Your task to perform on an android device: turn on the 12-hour format for clock Image 0: 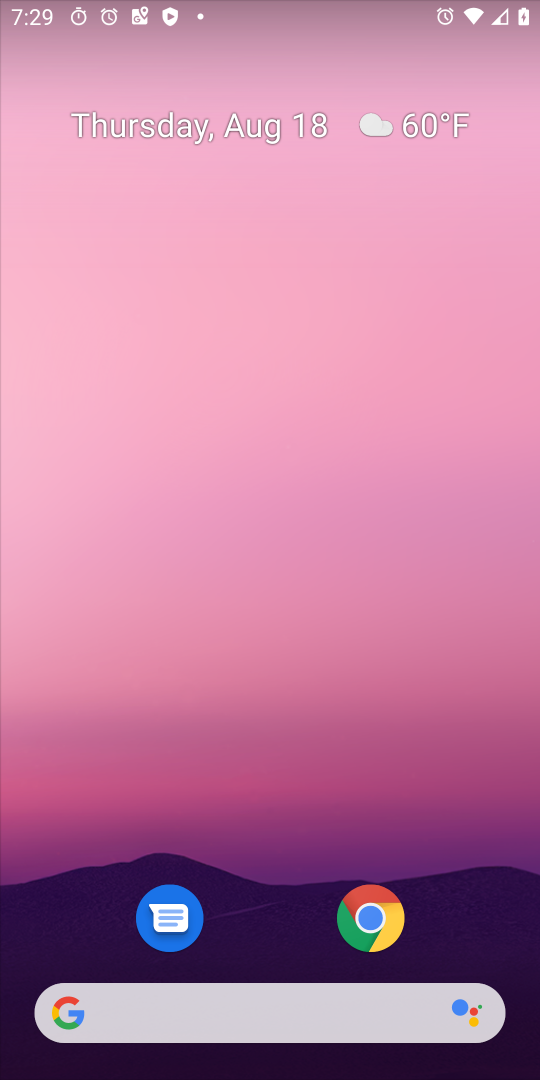
Step 0: press home button
Your task to perform on an android device: turn on the 12-hour format for clock Image 1: 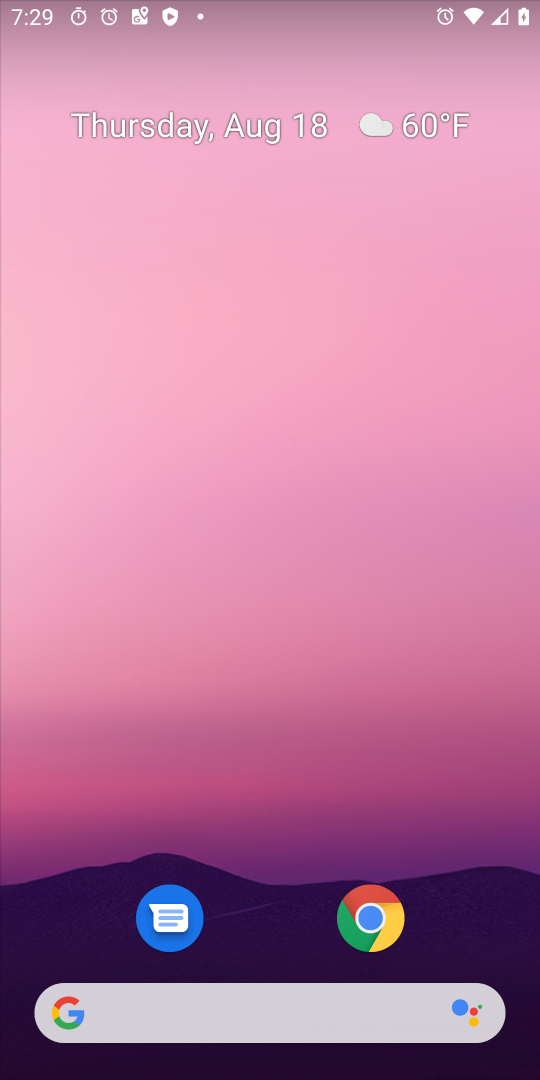
Step 1: press home button
Your task to perform on an android device: turn on the 12-hour format for clock Image 2: 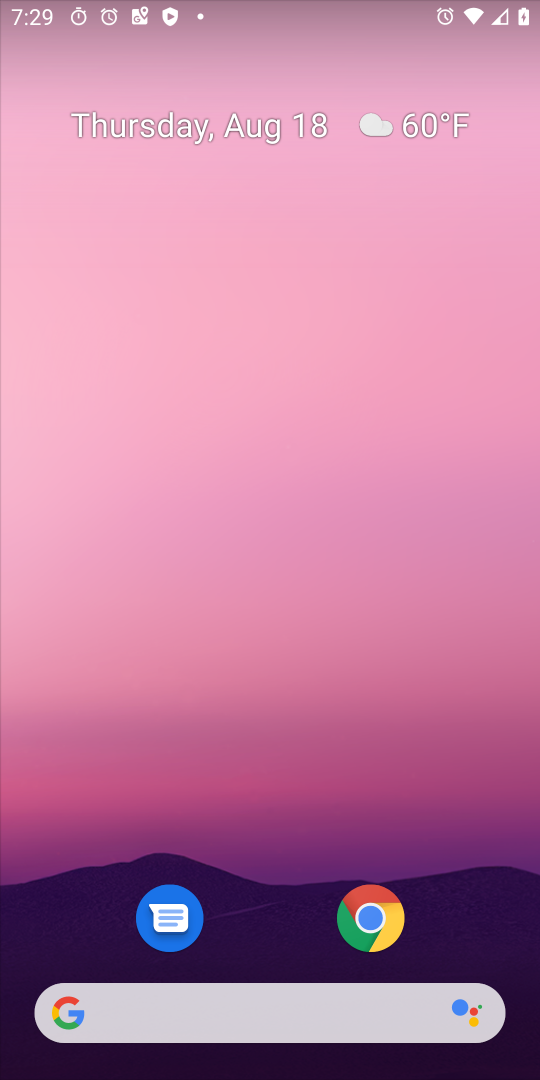
Step 2: drag from (296, 868) to (288, 25)
Your task to perform on an android device: turn on the 12-hour format for clock Image 3: 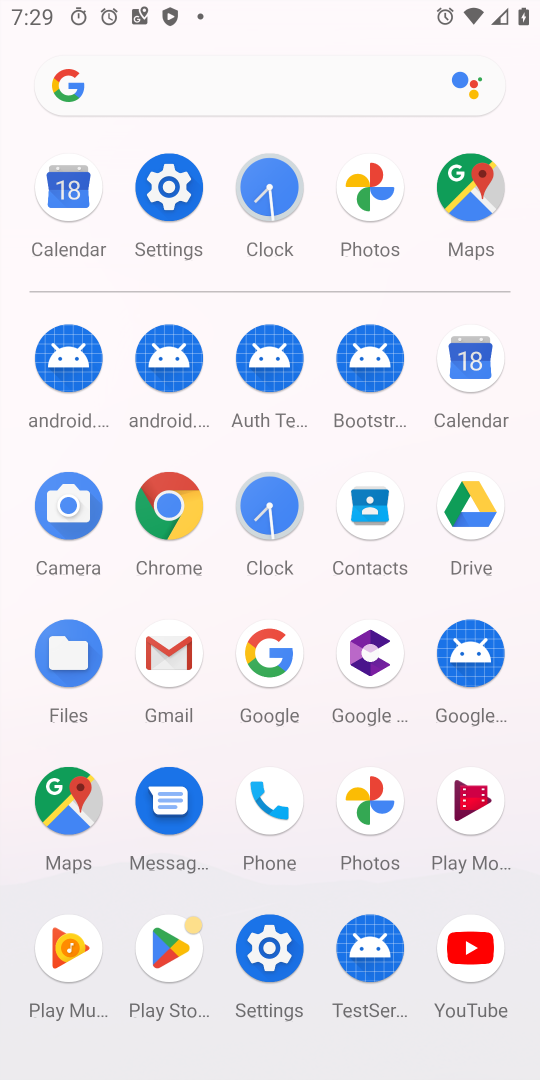
Step 3: click (161, 218)
Your task to perform on an android device: turn on the 12-hour format for clock Image 4: 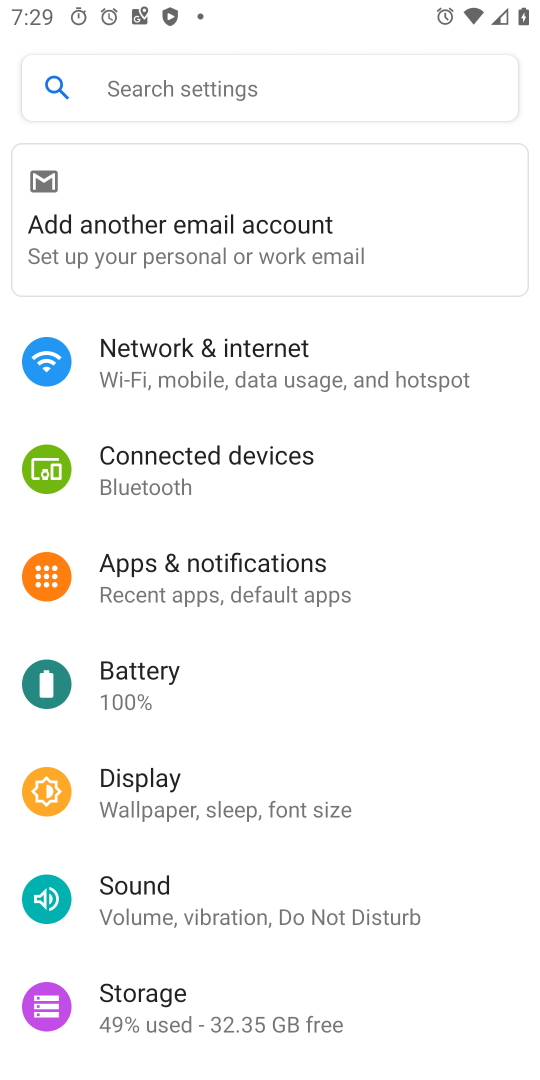
Step 4: drag from (444, 959) to (379, 177)
Your task to perform on an android device: turn on the 12-hour format for clock Image 5: 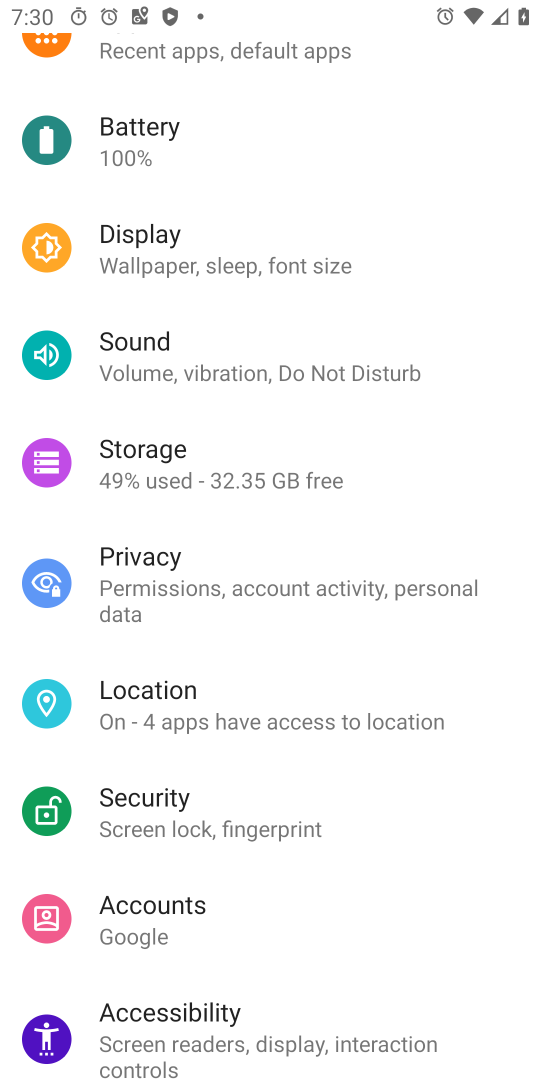
Step 5: drag from (369, 996) to (421, 91)
Your task to perform on an android device: turn on the 12-hour format for clock Image 6: 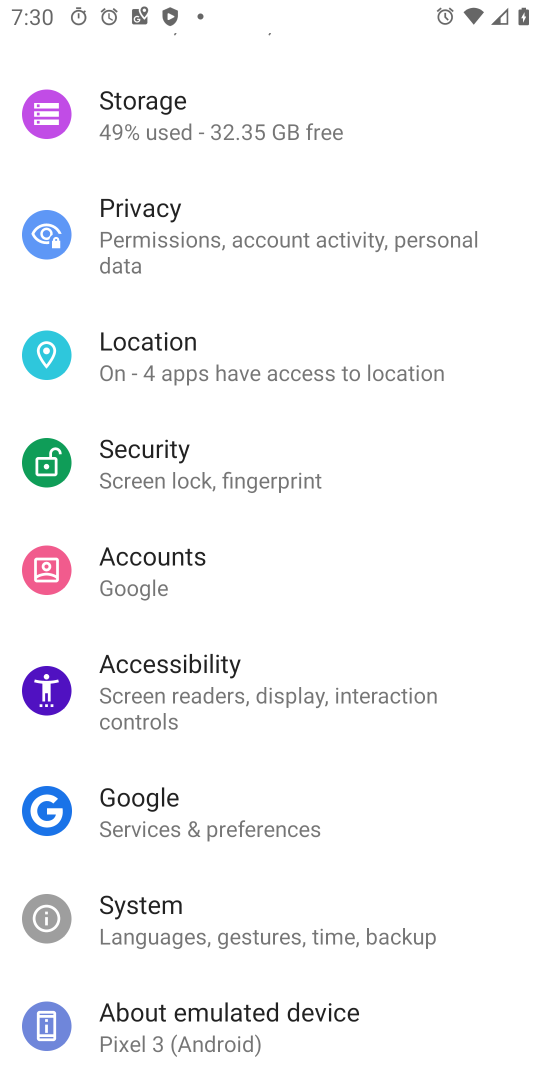
Step 6: drag from (445, 1028) to (455, 95)
Your task to perform on an android device: turn on the 12-hour format for clock Image 7: 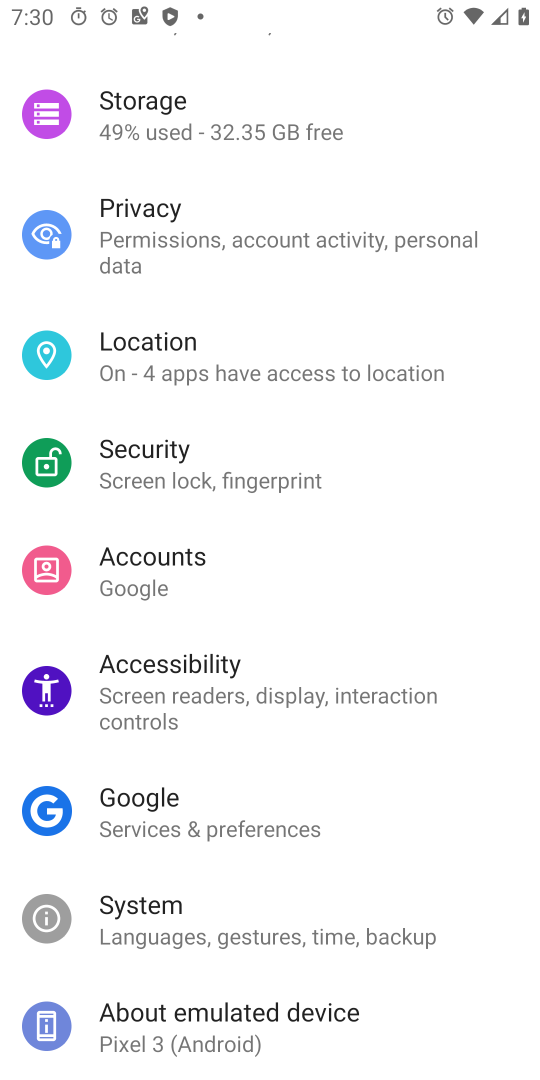
Step 7: drag from (443, 1027) to (398, 122)
Your task to perform on an android device: turn on the 12-hour format for clock Image 8: 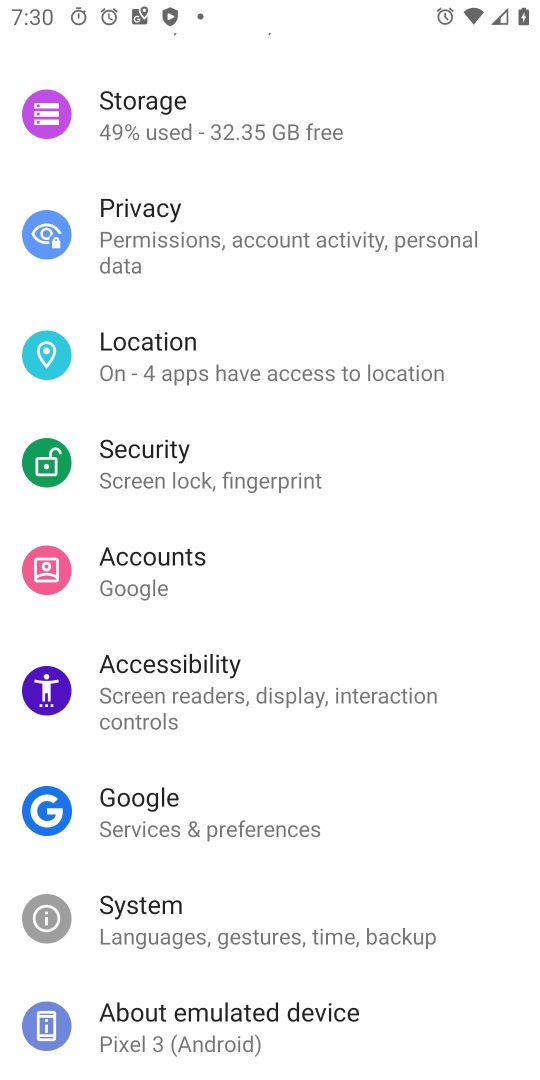
Step 8: drag from (302, 900) to (305, 69)
Your task to perform on an android device: turn on the 12-hour format for clock Image 9: 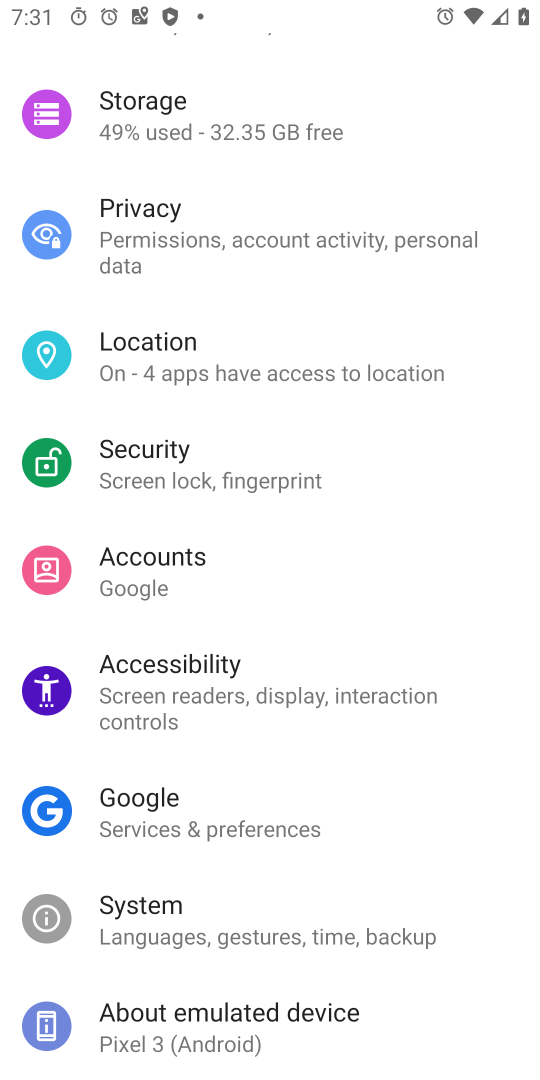
Step 9: click (148, 932)
Your task to perform on an android device: turn on the 12-hour format for clock Image 10: 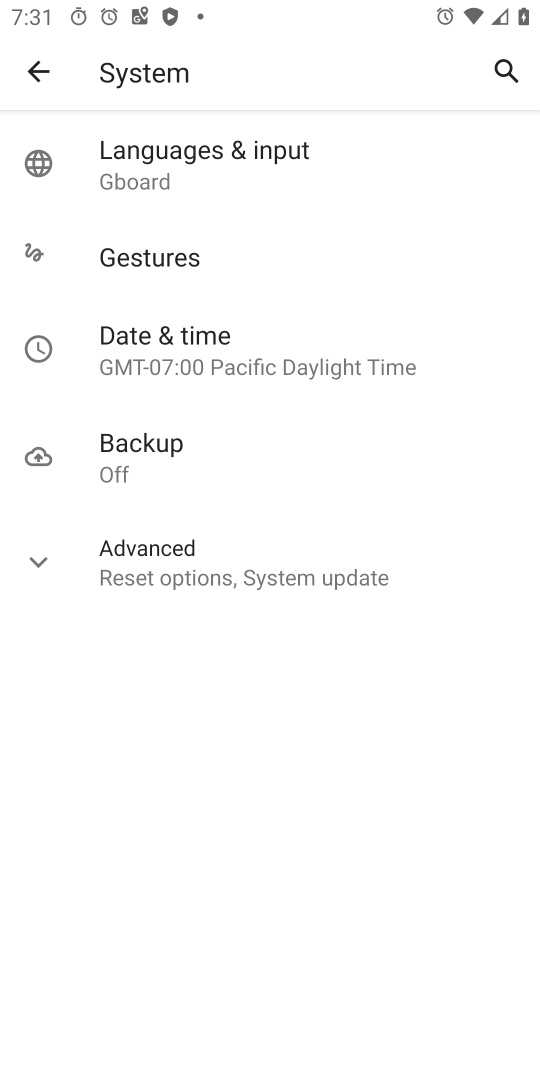
Step 10: click (182, 351)
Your task to perform on an android device: turn on the 12-hour format for clock Image 11: 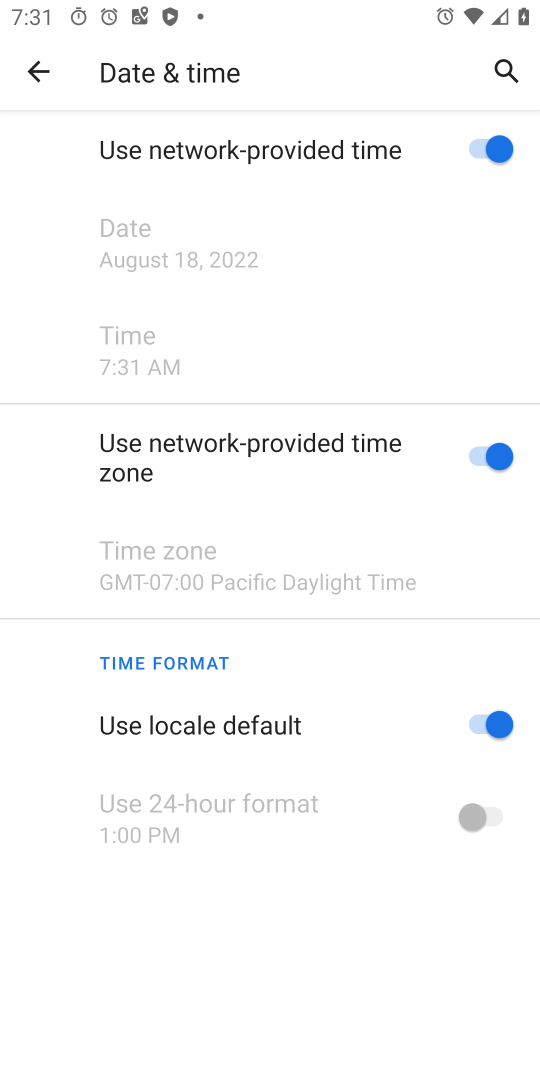
Step 11: click (500, 735)
Your task to perform on an android device: turn on the 12-hour format for clock Image 12: 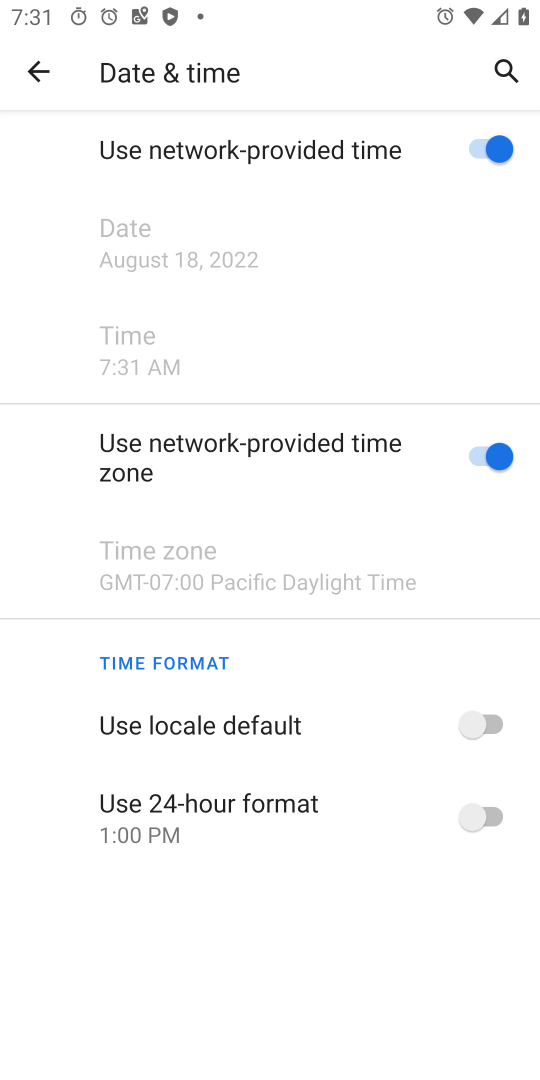
Step 12: click (482, 810)
Your task to perform on an android device: turn on the 12-hour format for clock Image 13: 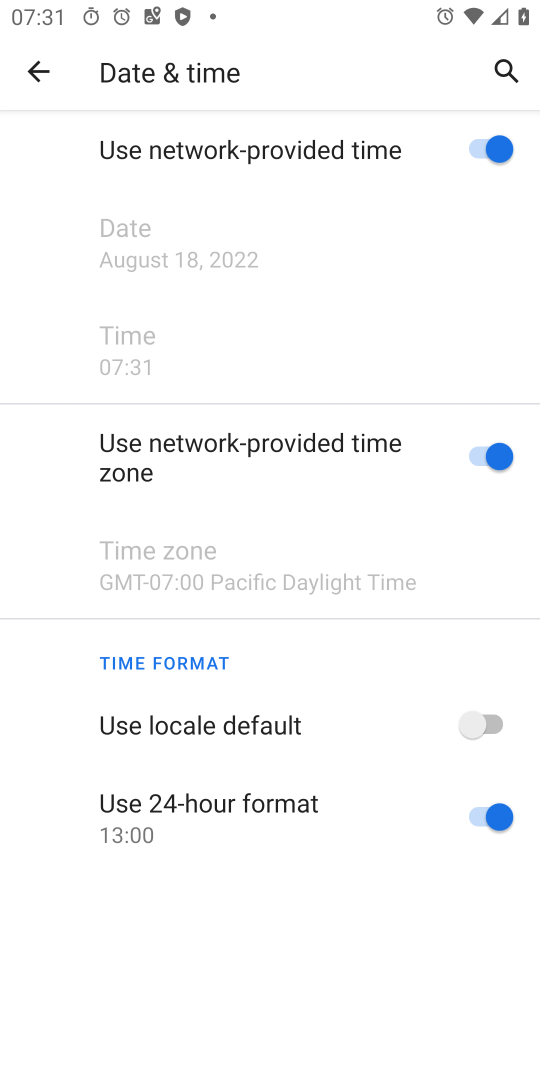
Step 13: click (498, 818)
Your task to perform on an android device: turn on the 12-hour format for clock Image 14: 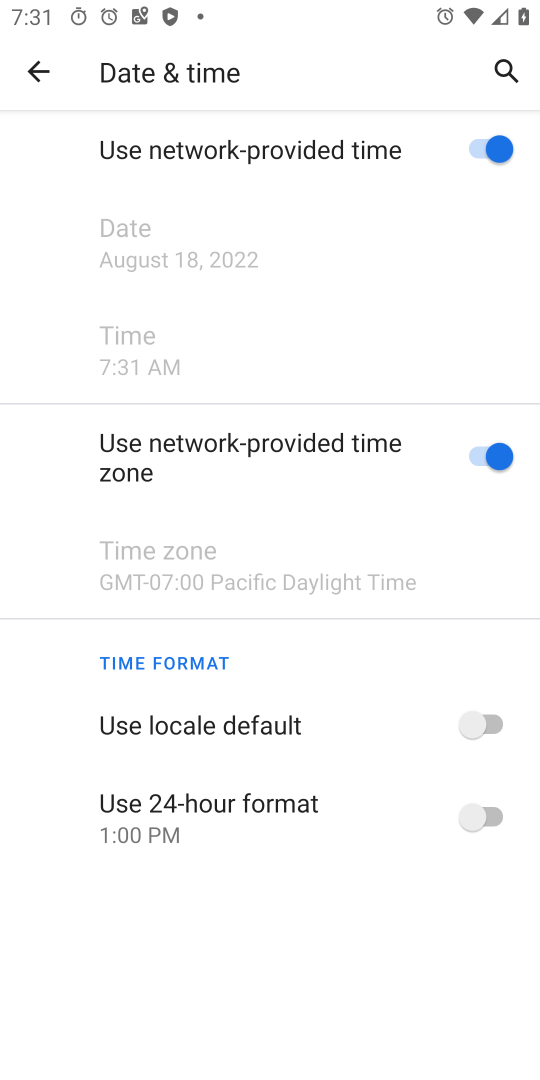
Step 14: task complete